Your task to perform on an android device: Search for a new bronzer Image 0: 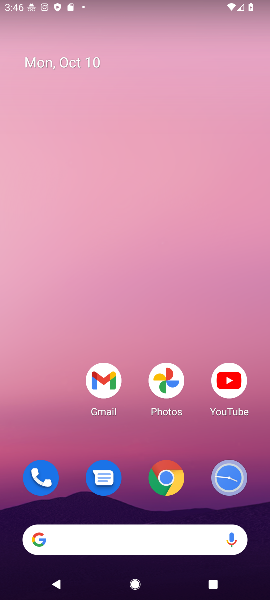
Step 0: click (176, 477)
Your task to perform on an android device: Search for a new bronzer Image 1: 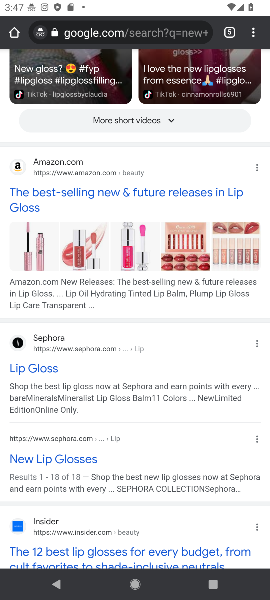
Step 1: click (132, 41)
Your task to perform on an android device: Search for a new bronzer Image 2: 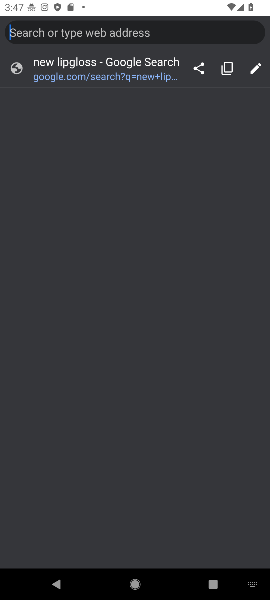
Step 2: type "new bronzer"
Your task to perform on an android device: Search for a new bronzer Image 3: 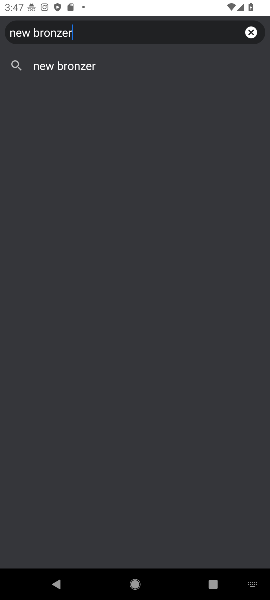
Step 3: click (93, 72)
Your task to perform on an android device: Search for a new bronzer Image 4: 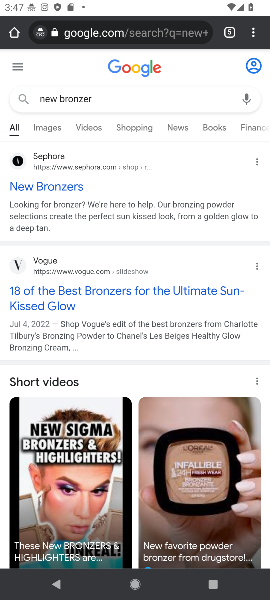
Step 4: click (50, 191)
Your task to perform on an android device: Search for a new bronzer Image 5: 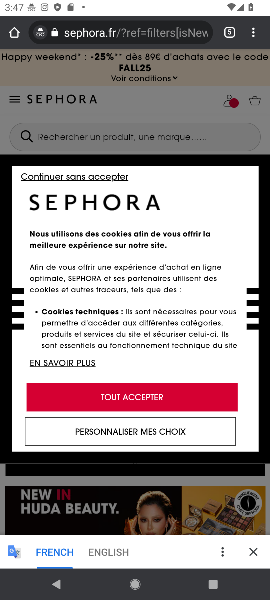
Step 5: click (202, 389)
Your task to perform on an android device: Search for a new bronzer Image 6: 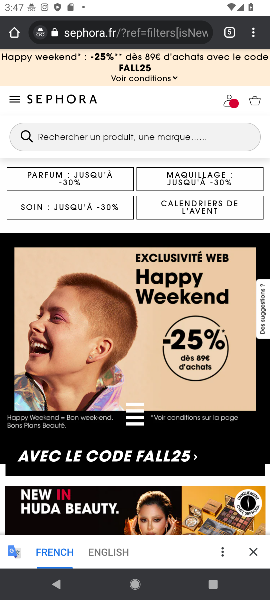
Step 6: click (91, 552)
Your task to perform on an android device: Search for a new bronzer Image 7: 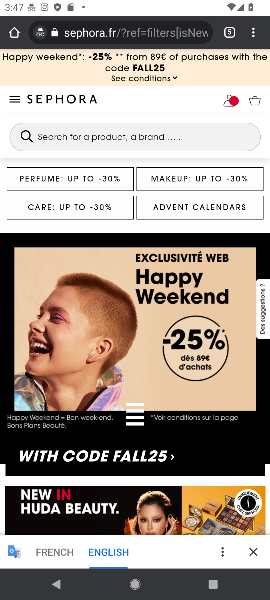
Step 7: task complete